Your task to perform on an android device: turn off sleep mode Image 0: 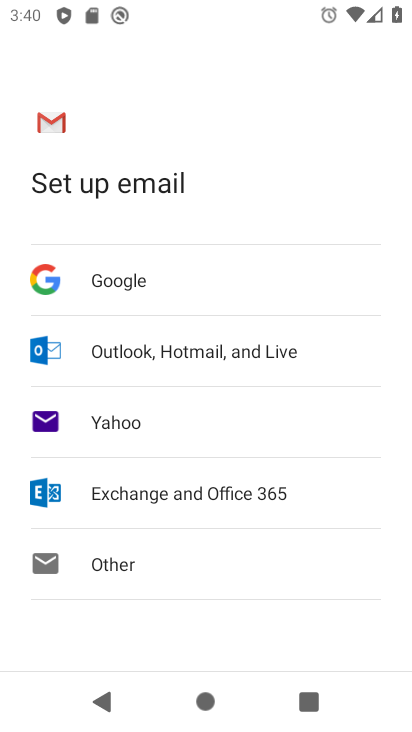
Step 0: press home button
Your task to perform on an android device: turn off sleep mode Image 1: 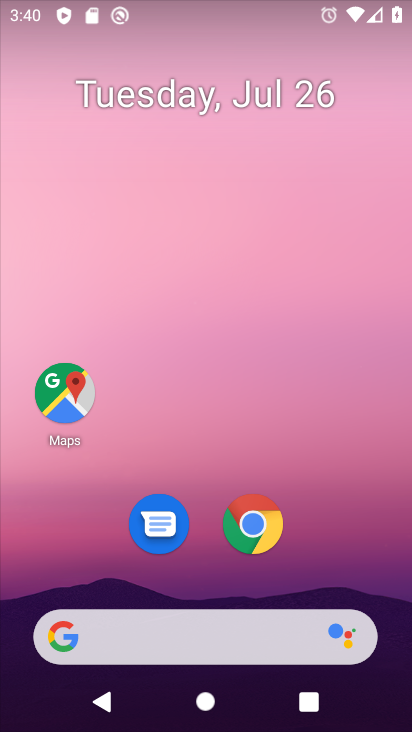
Step 1: drag from (351, 561) to (355, 16)
Your task to perform on an android device: turn off sleep mode Image 2: 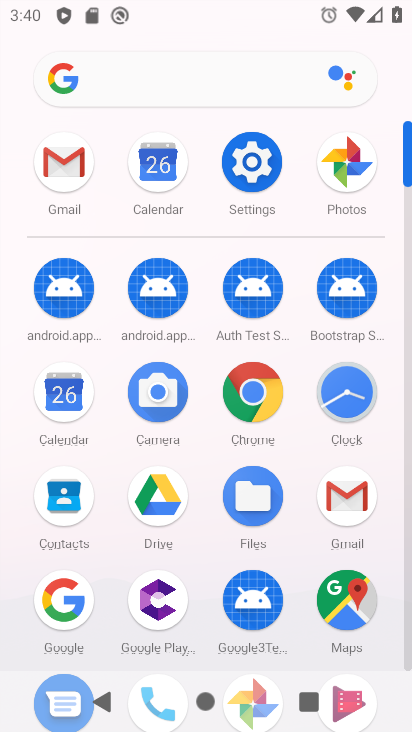
Step 2: click (250, 156)
Your task to perform on an android device: turn off sleep mode Image 3: 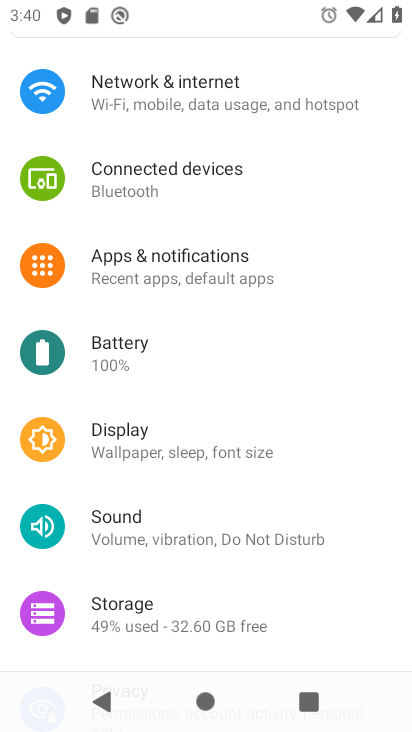
Step 3: click (227, 447)
Your task to perform on an android device: turn off sleep mode Image 4: 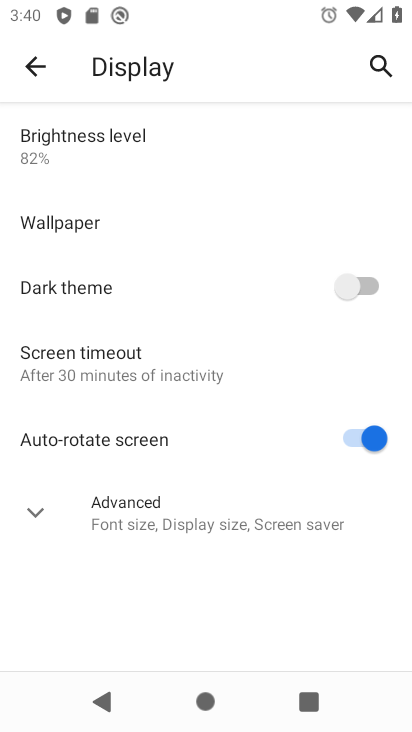
Step 4: click (33, 522)
Your task to perform on an android device: turn off sleep mode Image 5: 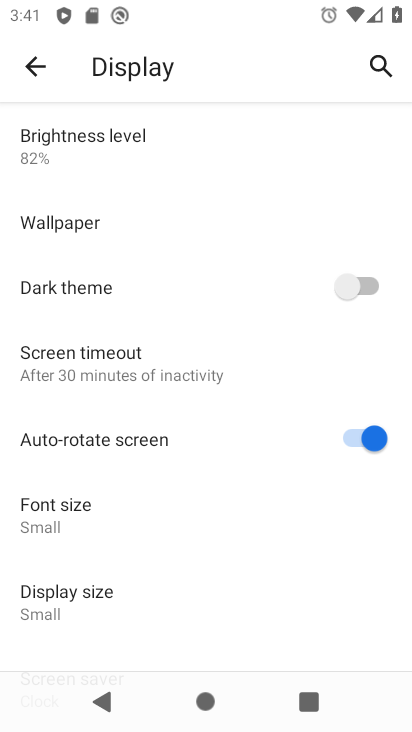
Step 5: task complete